Your task to perform on an android device: set default search engine in the chrome app Image 0: 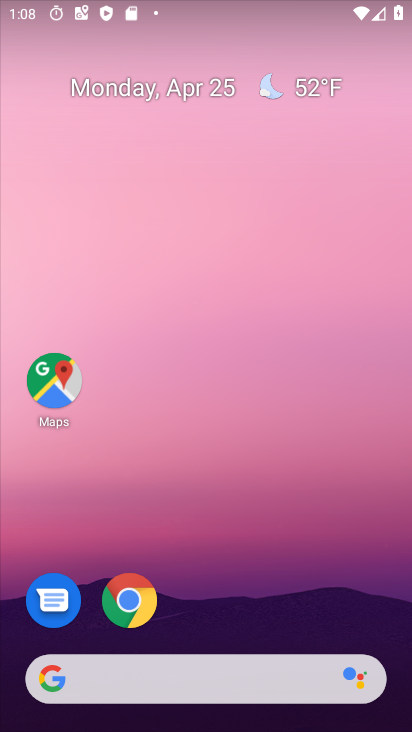
Step 0: press home button
Your task to perform on an android device: set default search engine in the chrome app Image 1: 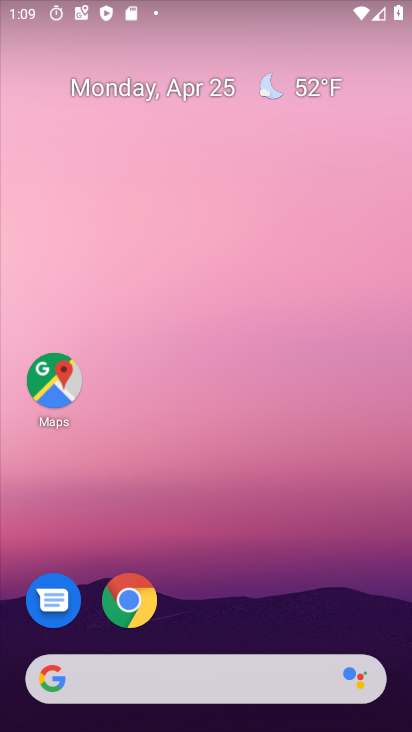
Step 1: drag from (150, 684) to (276, 204)
Your task to perform on an android device: set default search engine in the chrome app Image 2: 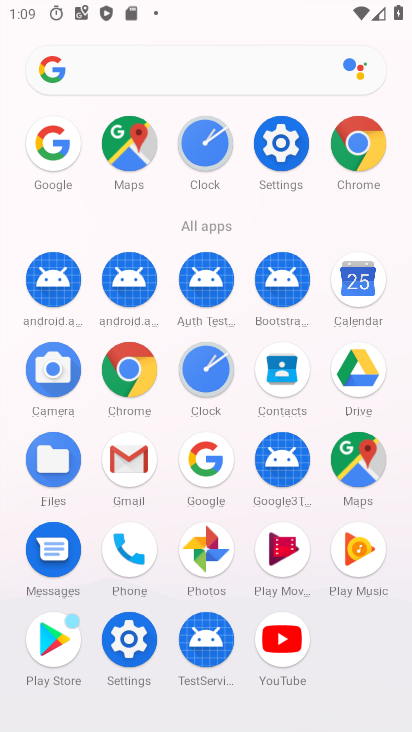
Step 2: click (359, 149)
Your task to perform on an android device: set default search engine in the chrome app Image 3: 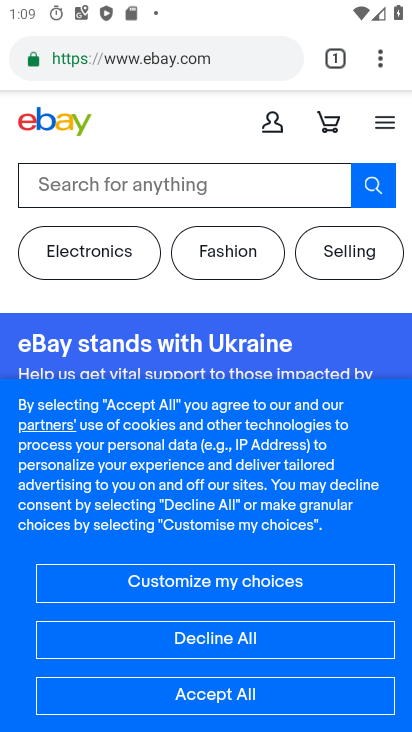
Step 3: drag from (378, 59) to (196, 629)
Your task to perform on an android device: set default search engine in the chrome app Image 4: 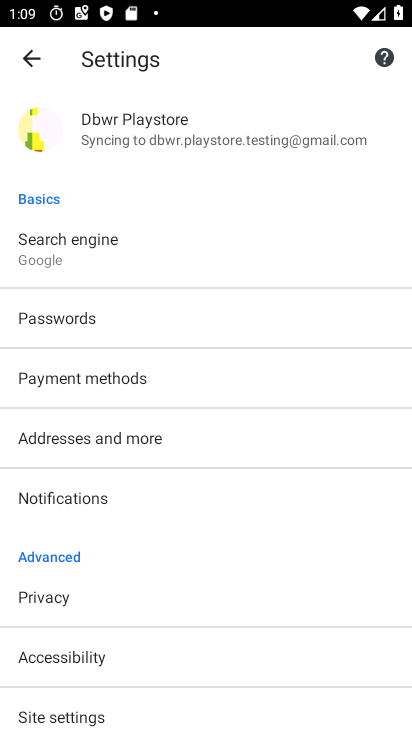
Step 4: click (69, 250)
Your task to perform on an android device: set default search engine in the chrome app Image 5: 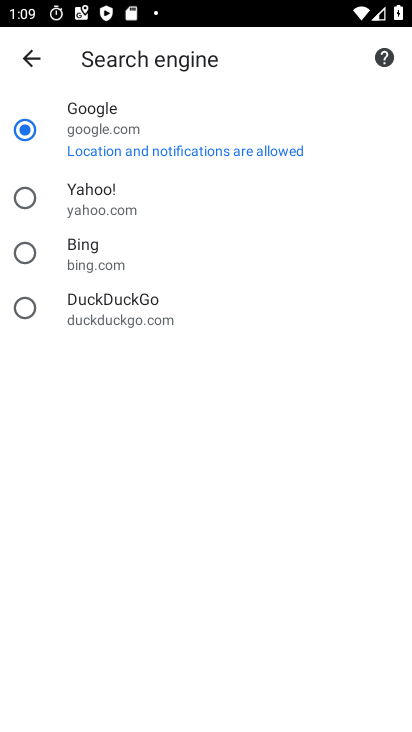
Step 5: click (17, 190)
Your task to perform on an android device: set default search engine in the chrome app Image 6: 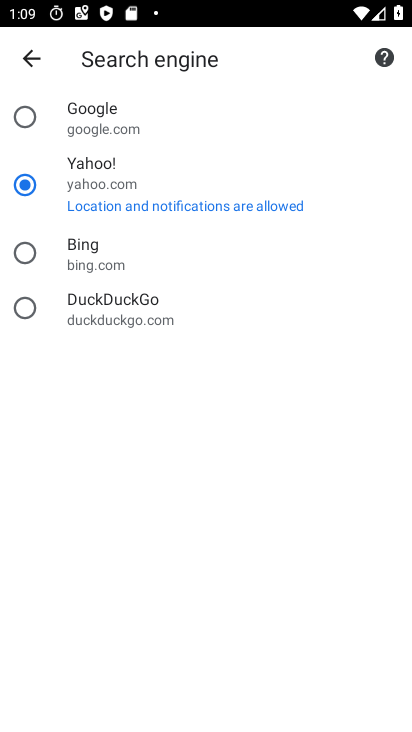
Step 6: task complete